Your task to perform on an android device: Show me productivity apps on the Play Store Image 0: 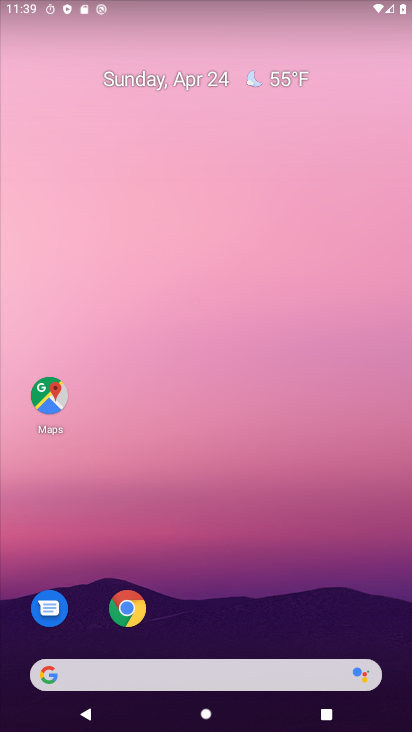
Step 0: drag from (201, 652) to (343, 28)
Your task to perform on an android device: Show me productivity apps on the Play Store Image 1: 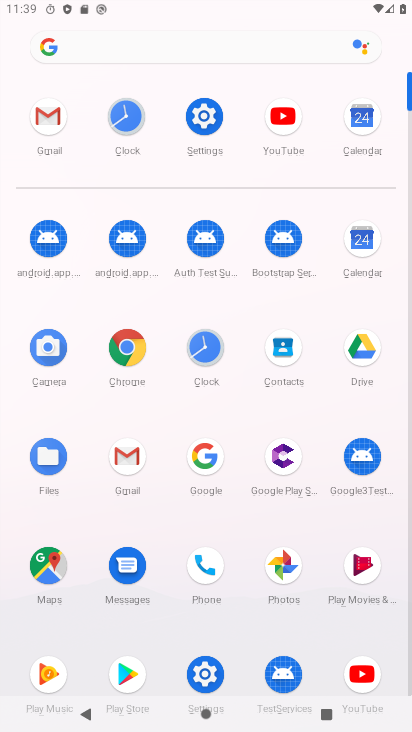
Step 1: click (129, 663)
Your task to perform on an android device: Show me productivity apps on the Play Store Image 2: 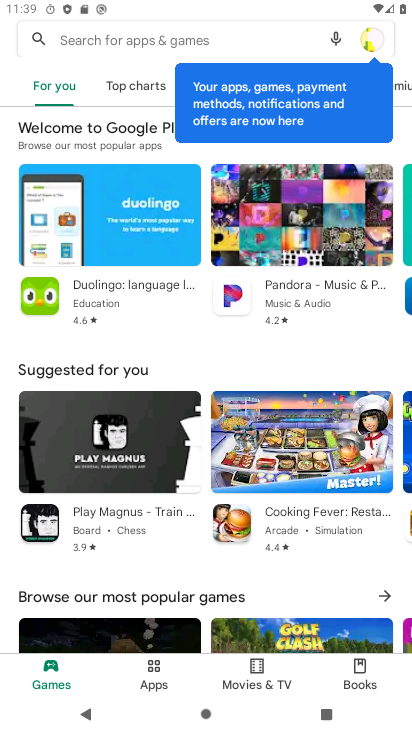
Step 2: click (159, 677)
Your task to perform on an android device: Show me productivity apps on the Play Store Image 3: 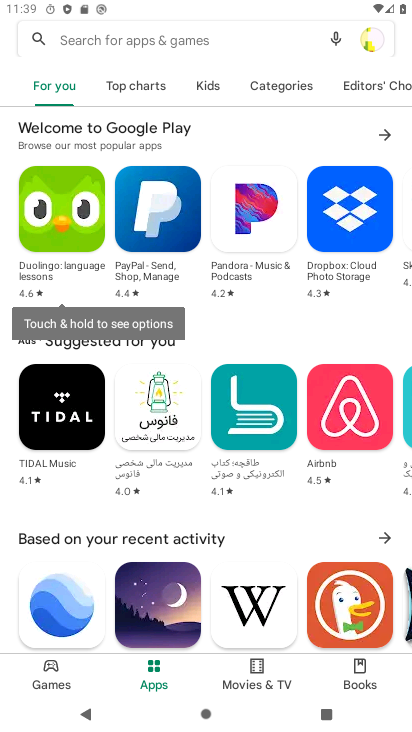
Step 3: drag from (93, 565) to (204, 200)
Your task to perform on an android device: Show me productivity apps on the Play Store Image 4: 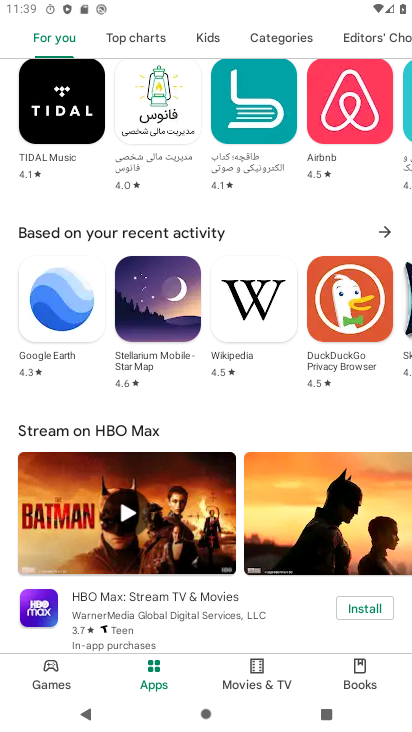
Step 4: drag from (140, 540) to (200, 181)
Your task to perform on an android device: Show me productivity apps on the Play Store Image 5: 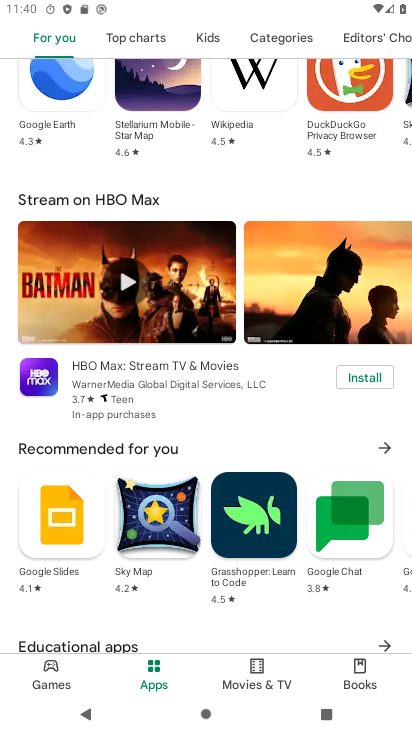
Step 5: drag from (106, 567) to (192, 89)
Your task to perform on an android device: Show me productivity apps on the Play Store Image 6: 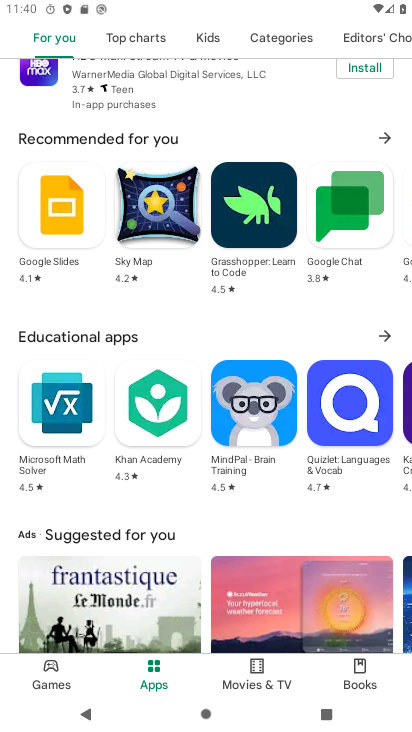
Step 6: drag from (98, 521) to (148, 125)
Your task to perform on an android device: Show me productivity apps on the Play Store Image 7: 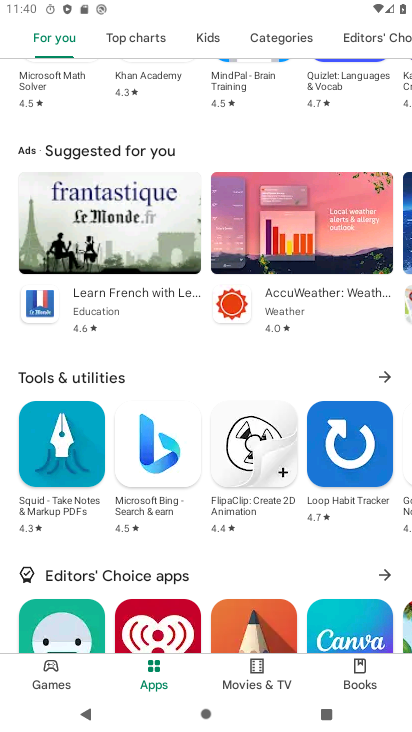
Step 7: drag from (110, 533) to (196, 128)
Your task to perform on an android device: Show me productivity apps on the Play Store Image 8: 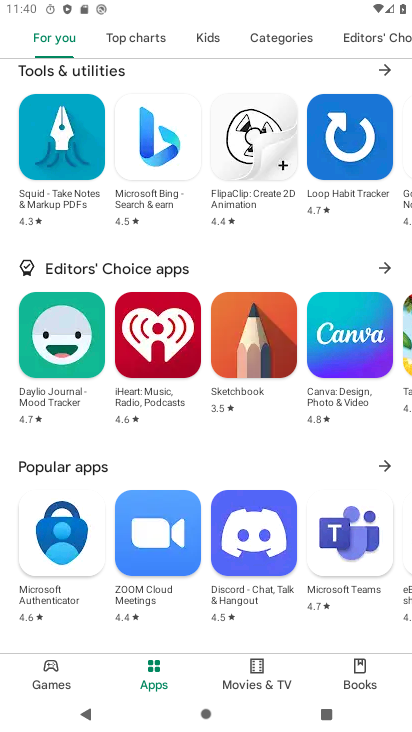
Step 8: drag from (78, 587) to (189, 141)
Your task to perform on an android device: Show me productivity apps on the Play Store Image 9: 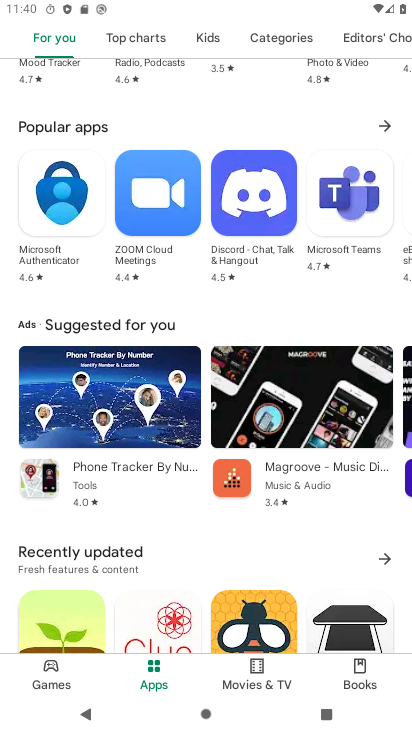
Step 9: drag from (108, 605) to (210, 137)
Your task to perform on an android device: Show me productivity apps on the Play Store Image 10: 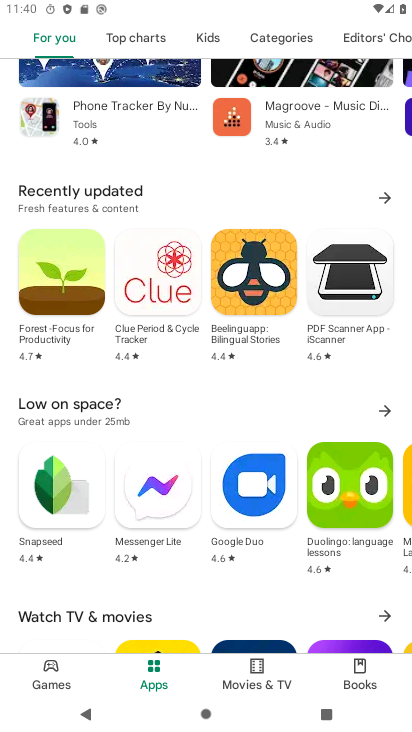
Step 10: drag from (102, 584) to (258, 84)
Your task to perform on an android device: Show me productivity apps on the Play Store Image 11: 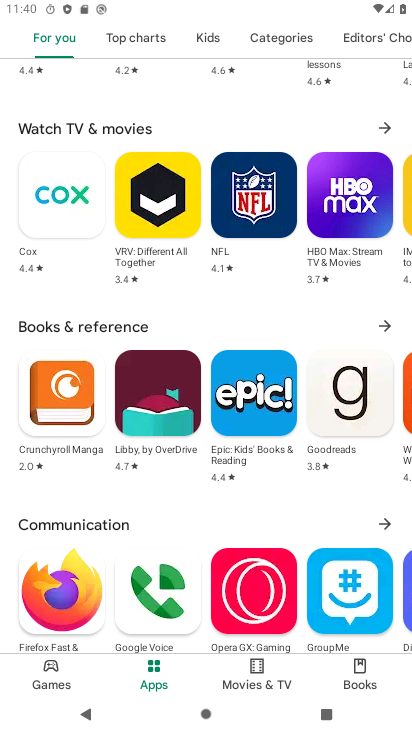
Step 11: drag from (115, 563) to (303, 43)
Your task to perform on an android device: Show me productivity apps on the Play Store Image 12: 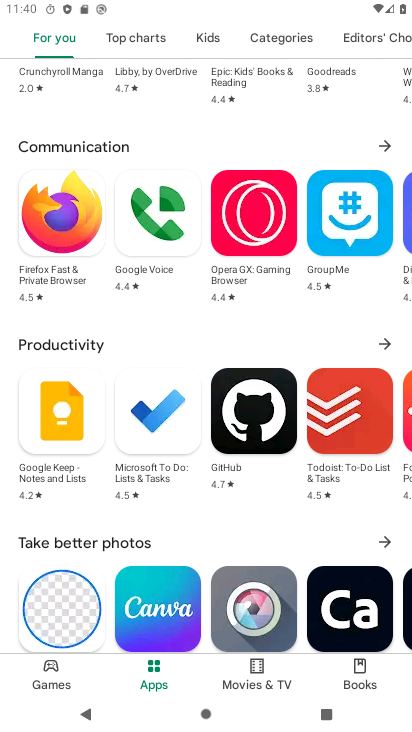
Step 12: click (380, 341)
Your task to perform on an android device: Show me productivity apps on the Play Store Image 13: 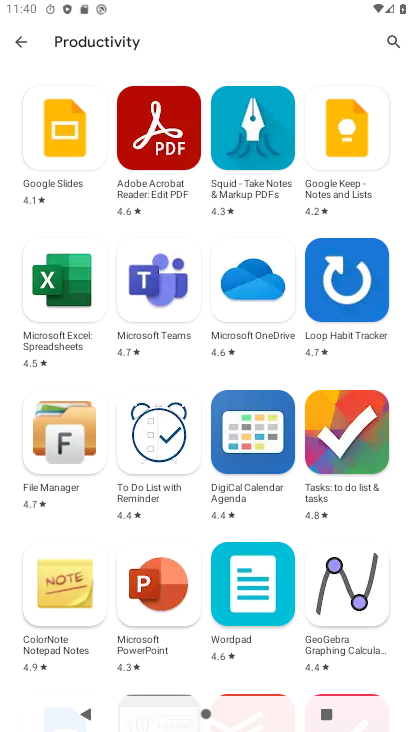
Step 13: task complete